Your task to perform on an android device: Open calendar and show me the first week of next month Image 0: 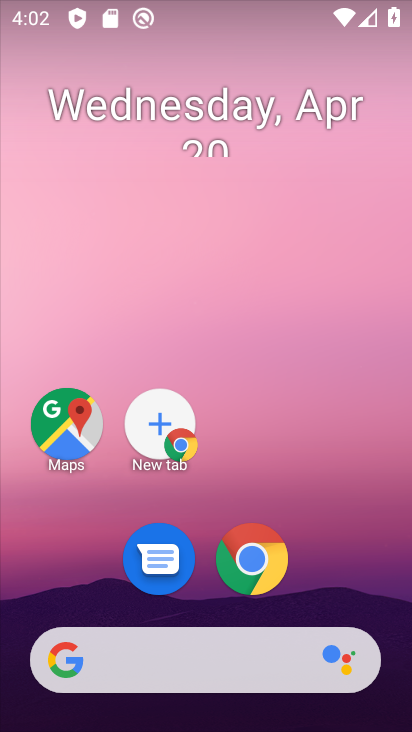
Step 0: drag from (348, 581) to (305, 188)
Your task to perform on an android device: Open calendar and show me the first week of next month Image 1: 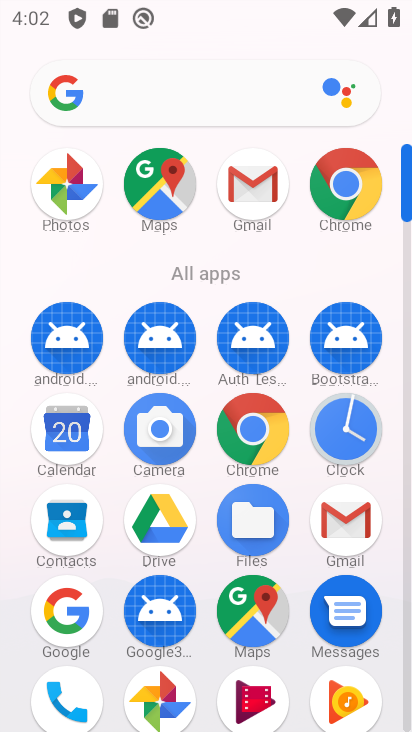
Step 1: click (76, 427)
Your task to perform on an android device: Open calendar and show me the first week of next month Image 2: 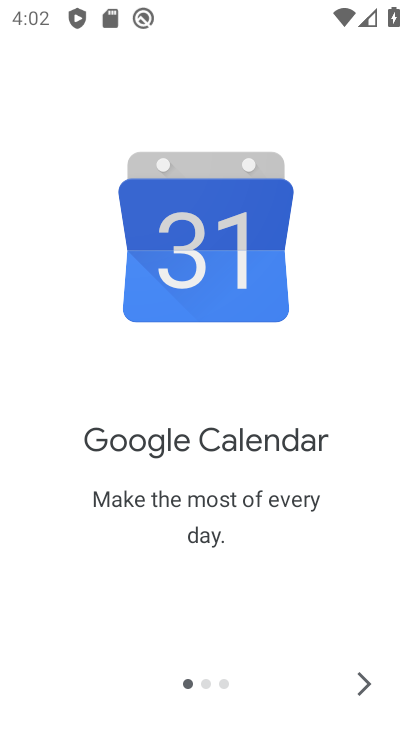
Step 2: click (366, 708)
Your task to perform on an android device: Open calendar and show me the first week of next month Image 3: 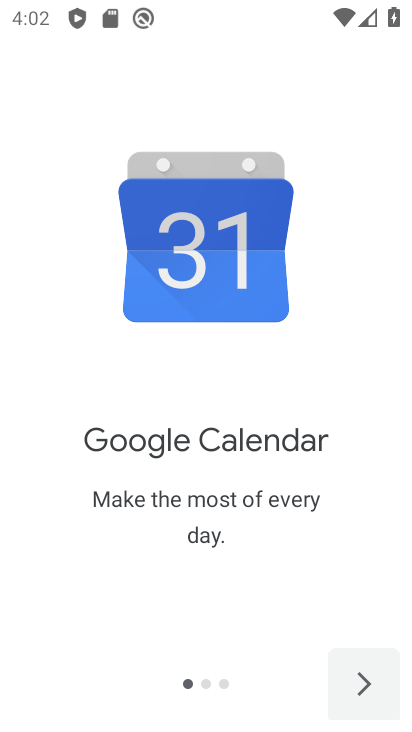
Step 3: click (366, 708)
Your task to perform on an android device: Open calendar and show me the first week of next month Image 4: 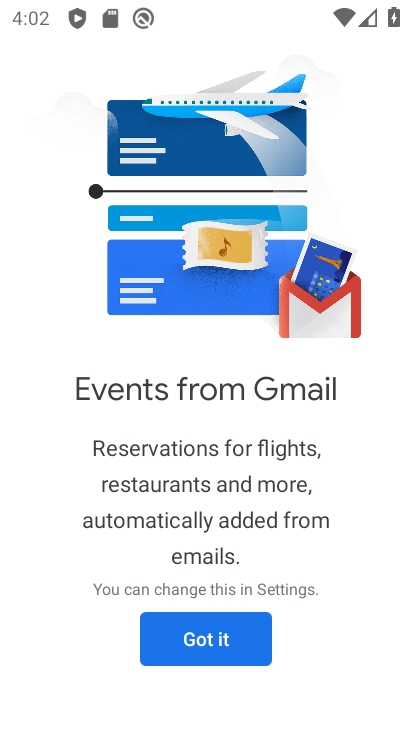
Step 4: click (239, 636)
Your task to perform on an android device: Open calendar and show me the first week of next month Image 5: 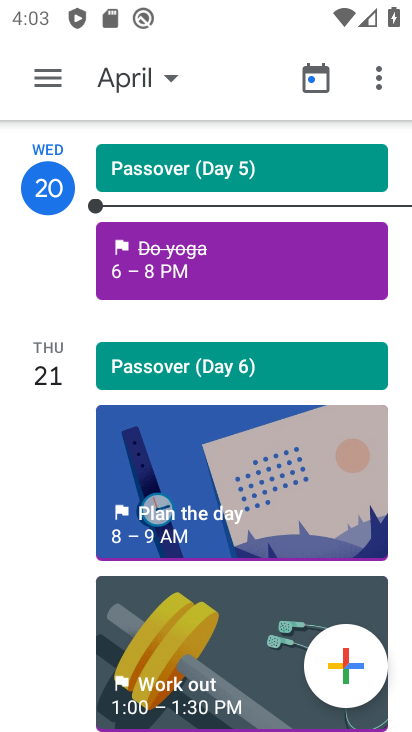
Step 5: click (117, 79)
Your task to perform on an android device: Open calendar and show me the first week of next month Image 6: 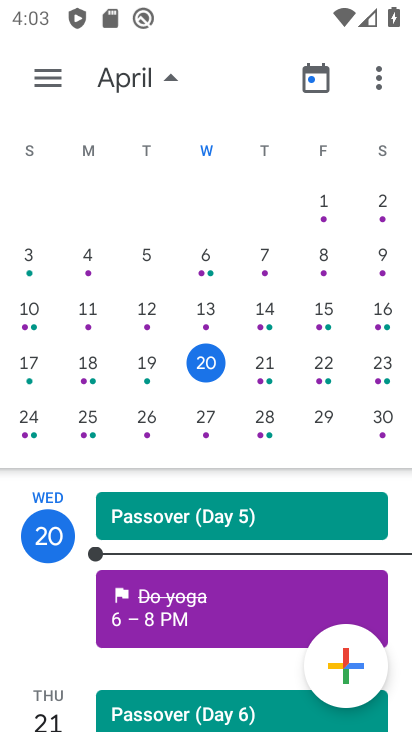
Step 6: drag from (381, 364) to (4, 381)
Your task to perform on an android device: Open calendar and show me the first week of next month Image 7: 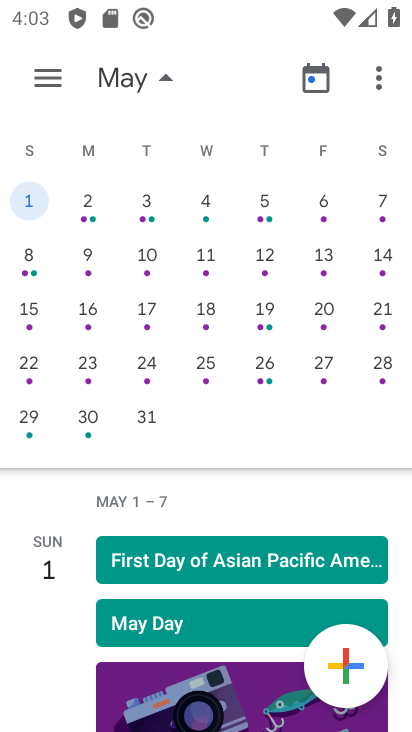
Step 7: click (191, 208)
Your task to perform on an android device: Open calendar and show me the first week of next month Image 8: 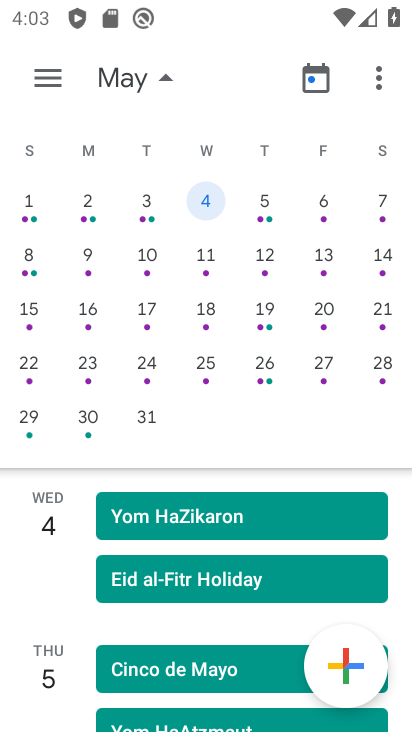
Step 8: task complete